Your task to perform on an android device: Go to eBay Image 0: 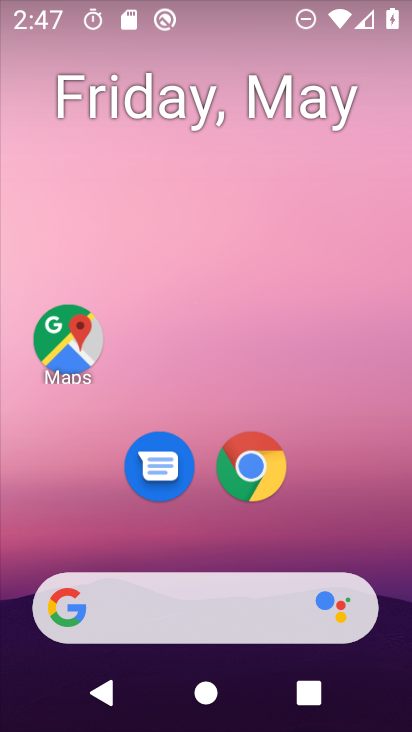
Step 0: click (249, 482)
Your task to perform on an android device: Go to eBay Image 1: 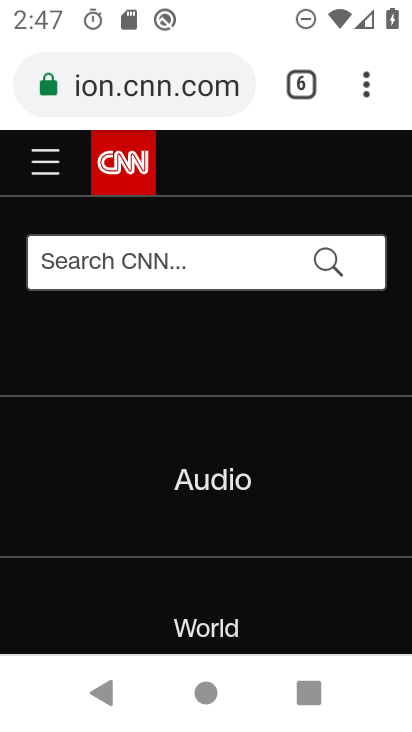
Step 1: click (153, 99)
Your task to perform on an android device: Go to eBay Image 2: 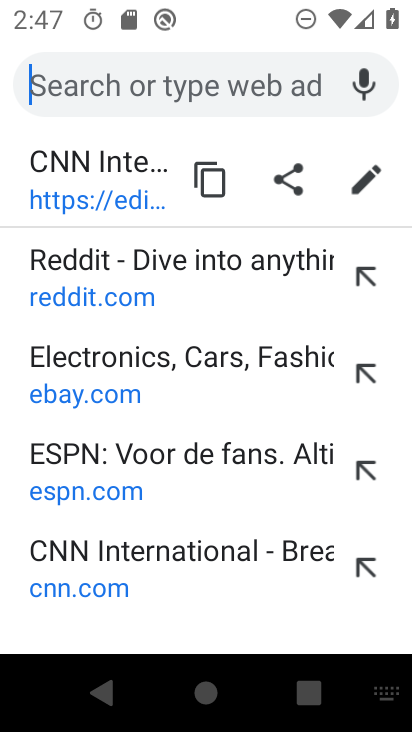
Step 2: type "ebay"
Your task to perform on an android device: Go to eBay Image 3: 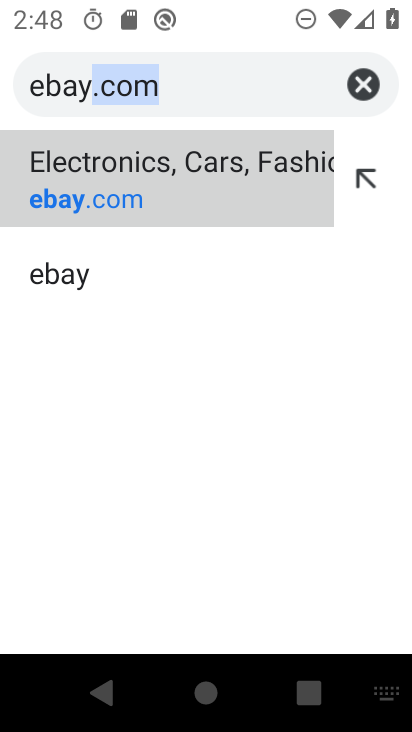
Step 3: click (109, 198)
Your task to perform on an android device: Go to eBay Image 4: 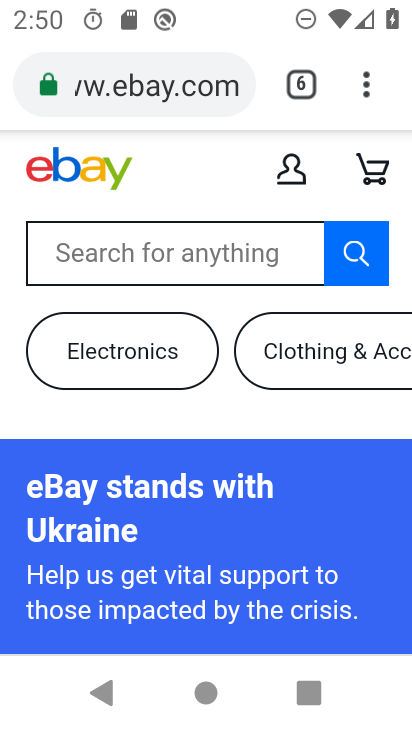
Step 4: task complete